Your task to perform on an android device: Open the calendar and show me this week's events? Image 0: 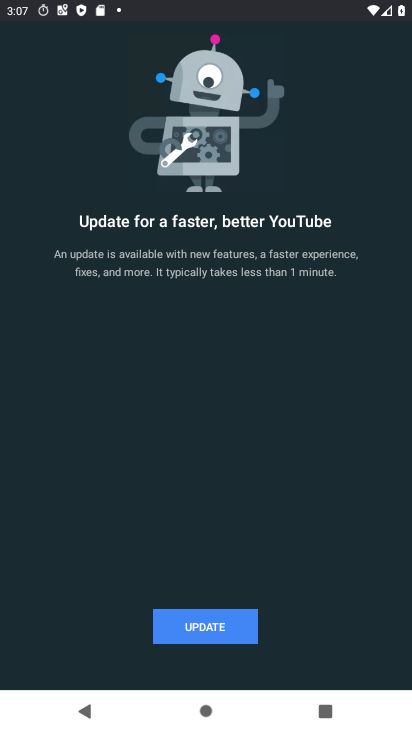
Step 0: press home button
Your task to perform on an android device: Open the calendar and show me this week's events? Image 1: 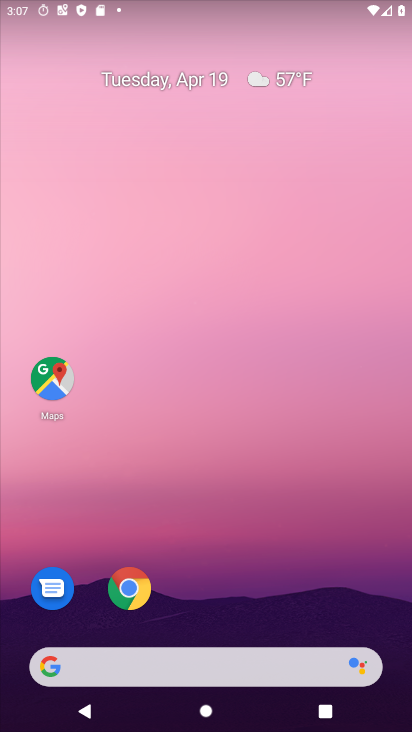
Step 1: drag from (179, 634) to (337, 226)
Your task to perform on an android device: Open the calendar and show me this week's events? Image 2: 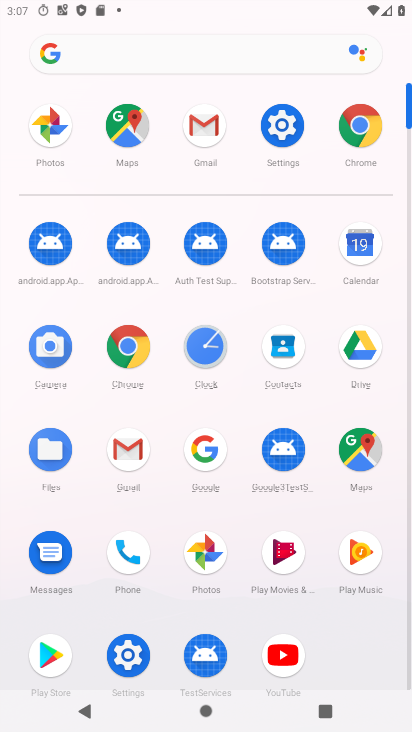
Step 2: click (365, 231)
Your task to perform on an android device: Open the calendar and show me this week's events? Image 3: 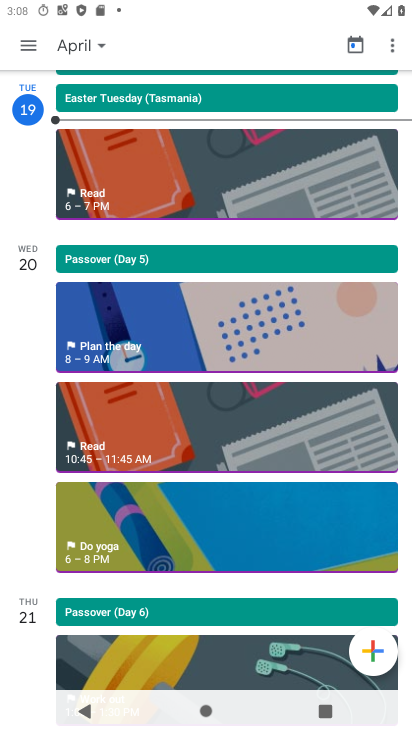
Step 3: click (37, 49)
Your task to perform on an android device: Open the calendar and show me this week's events? Image 4: 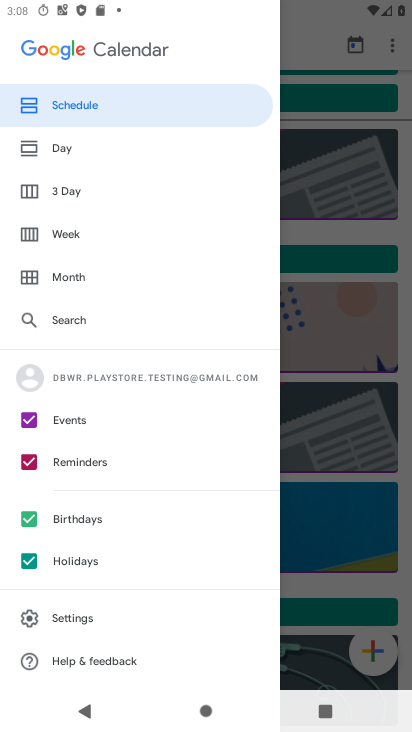
Step 4: click (38, 453)
Your task to perform on an android device: Open the calendar and show me this week's events? Image 5: 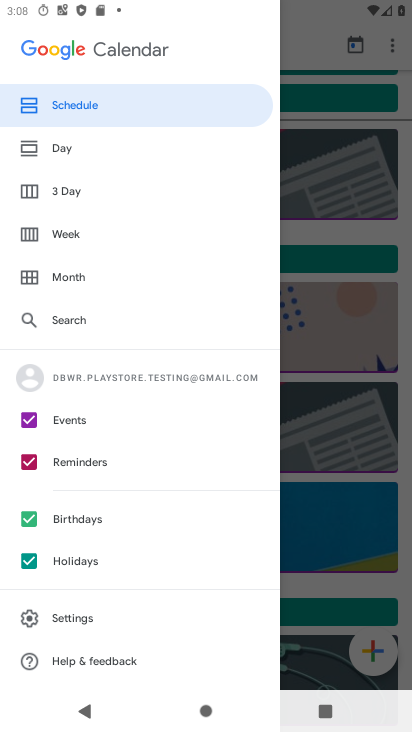
Step 5: click (32, 517)
Your task to perform on an android device: Open the calendar and show me this week's events? Image 6: 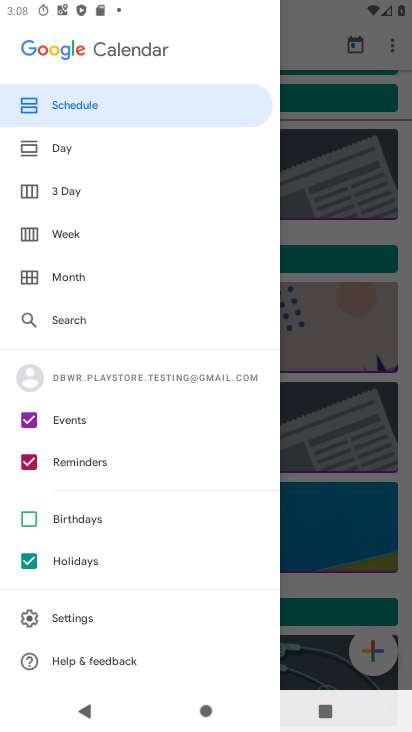
Step 6: click (29, 560)
Your task to perform on an android device: Open the calendar and show me this week's events? Image 7: 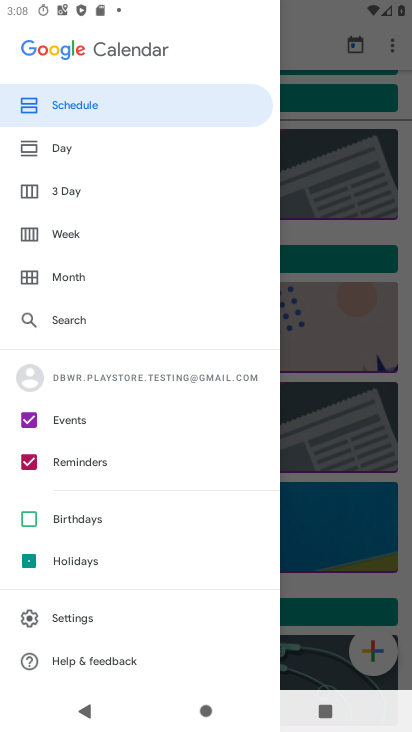
Step 7: click (34, 461)
Your task to perform on an android device: Open the calendar and show me this week's events? Image 8: 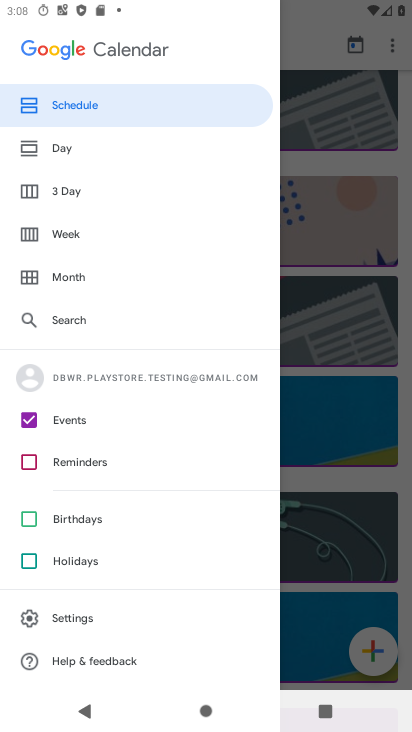
Step 8: task complete